Your task to perform on an android device: Open Google Chrome and click the shortcut for Amazon.com Image 0: 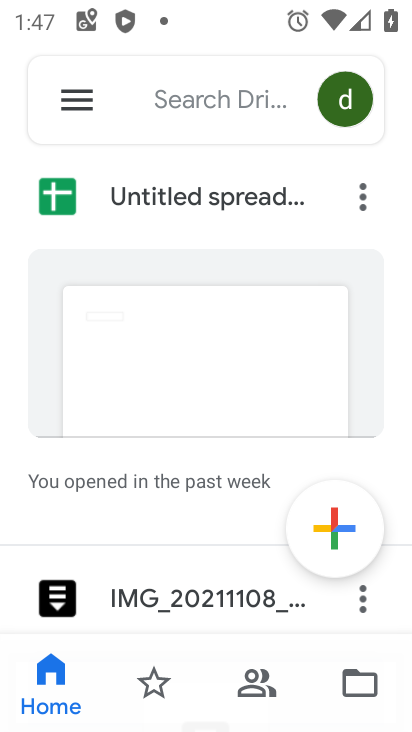
Step 0: press home button
Your task to perform on an android device: Open Google Chrome and click the shortcut for Amazon.com Image 1: 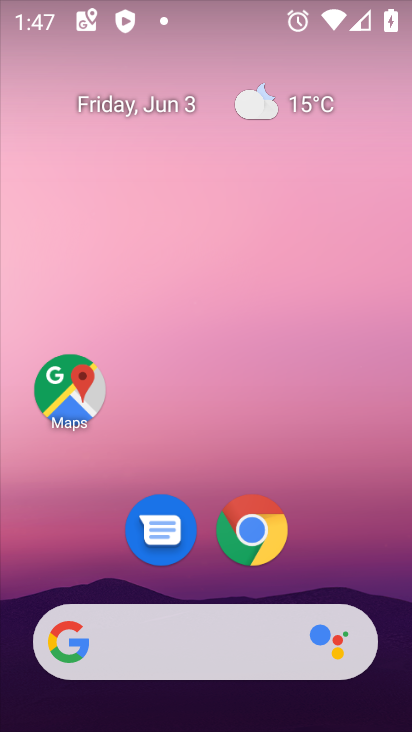
Step 1: click (251, 508)
Your task to perform on an android device: Open Google Chrome and click the shortcut for Amazon.com Image 2: 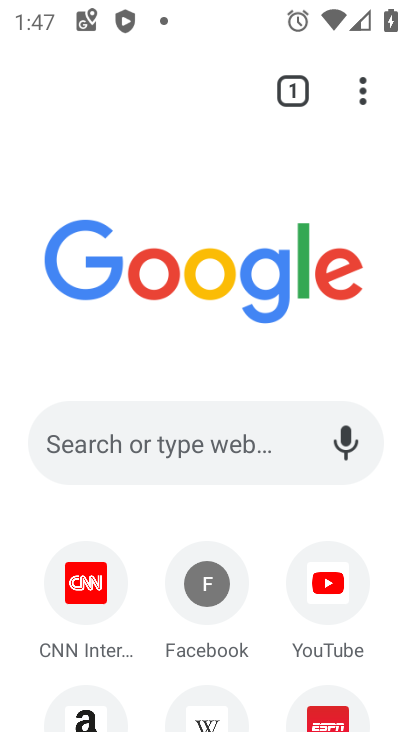
Step 2: drag from (362, 87) to (82, 711)
Your task to perform on an android device: Open Google Chrome and click the shortcut for Amazon.com Image 3: 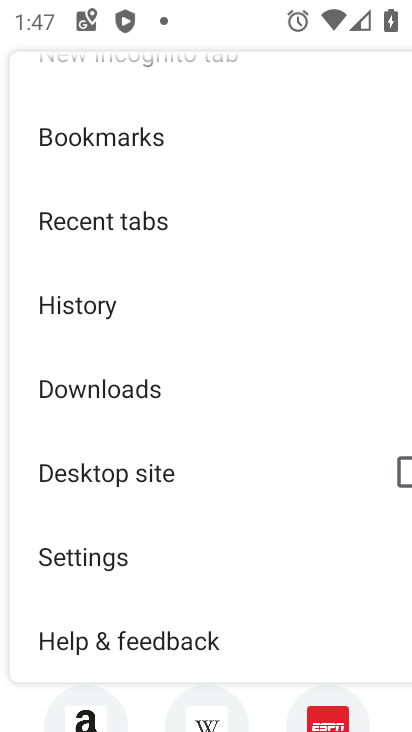
Step 3: click (78, 711)
Your task to perform on an android device: Open Google Chrome and click the shortcut for Amazon.com Image 4: 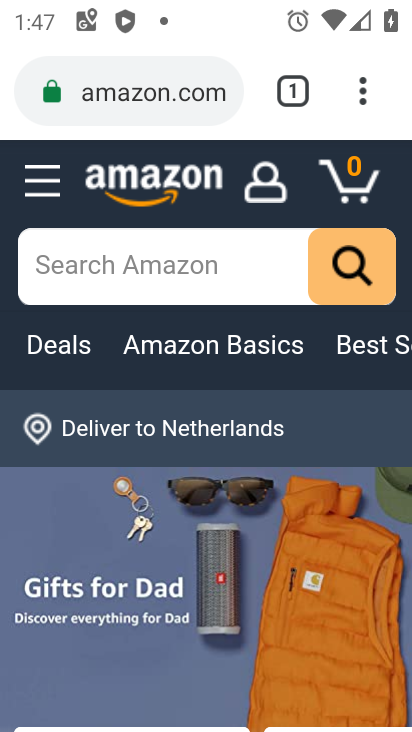
Step 4: task complete